Your task to perform on an android device: Set the phone to "Do not disturb". Image 0: 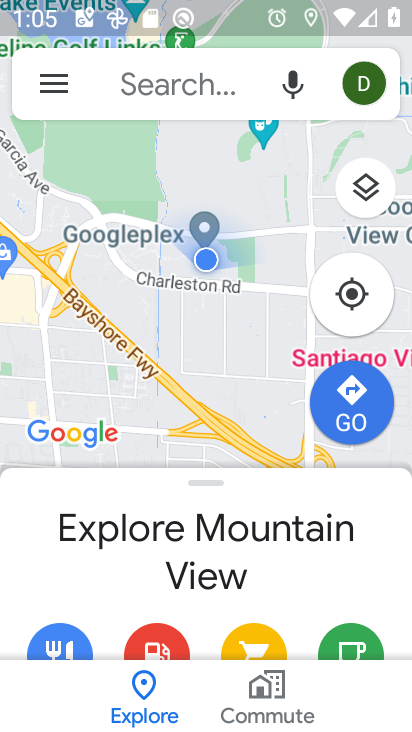
Step 0: press home button
Your task to perform on an android device: Set the phone to "Do not disturb". Image 1: 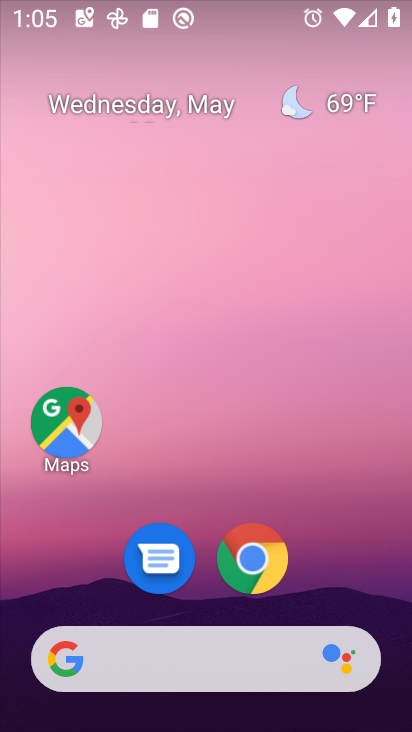
Step 1: drag from (234, 2) to (275, 532)
Your task to perform on an android device: Set the phone to "Do not disturb". Image 2: 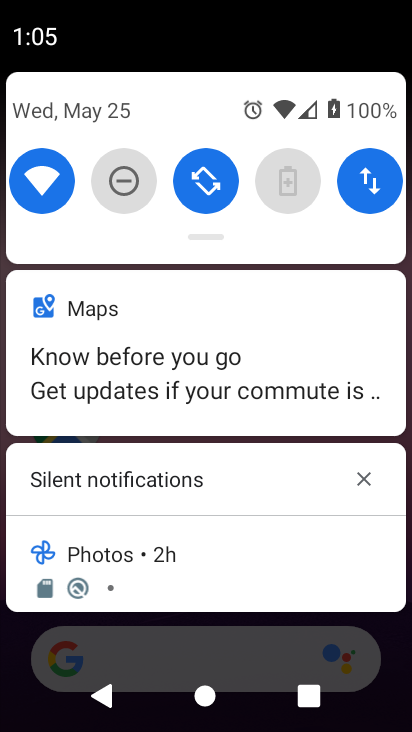
Step 2: click (125, 174)
Your task to perform on an android device: Set the phone to "Do not disturb". Image 3: 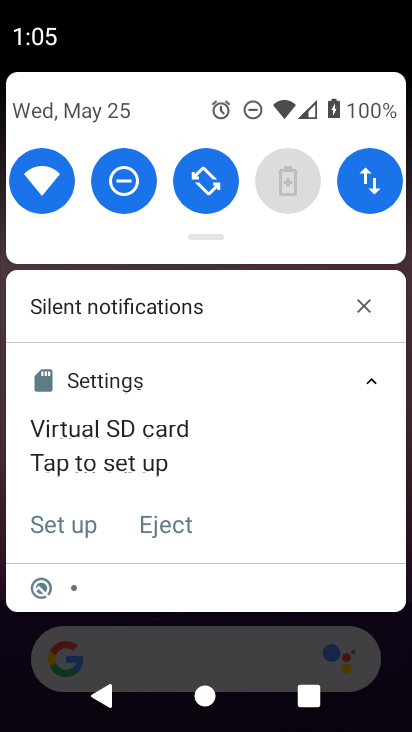
Step 3: task complete